Your task to perform on an android device: Set the phone to "Do not disturb". Image 0: 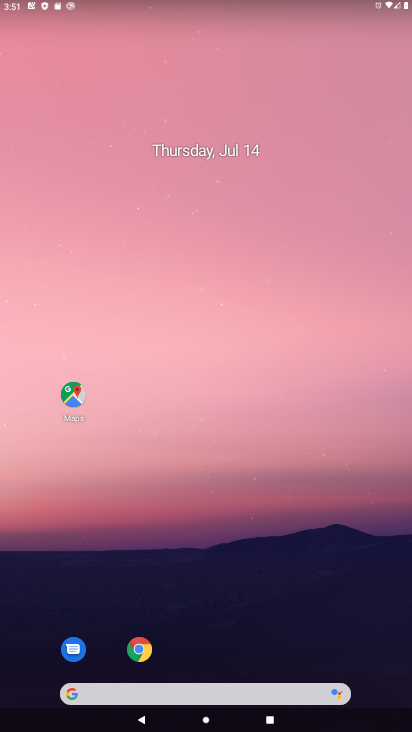
Step 0: drag from (219, 647) to (214, 32)
Your task to perform on an android device: Set the phone to "Do not disturb". Image 1: 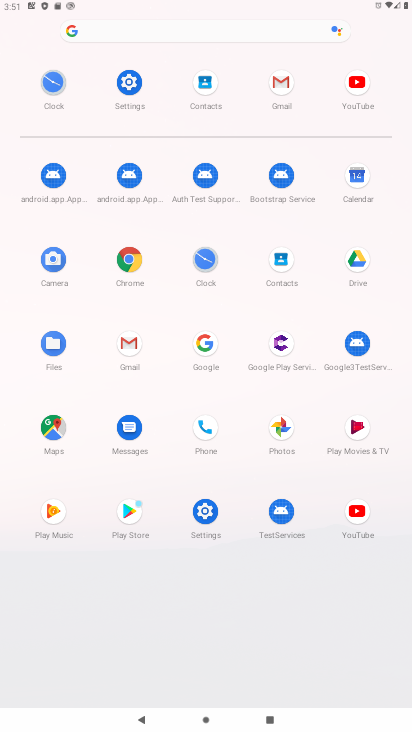
Step 1: click (202, 526)
Your task to perform on an android device: Set the phone to "Do not disturb". Image 2: 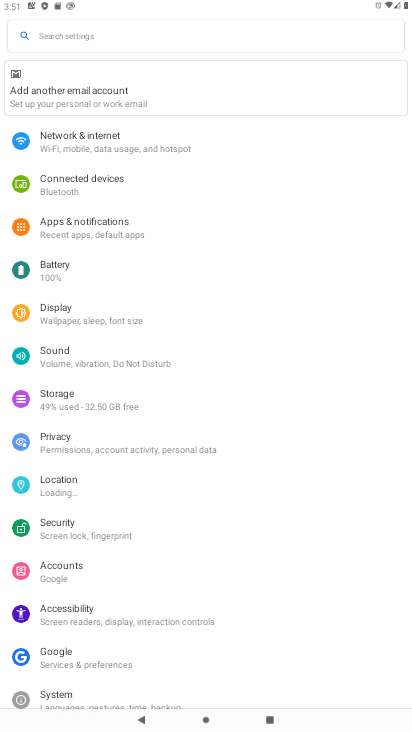
Step 2: click (100, 356)
Your task to perform on an android device: Set the phone to "Do not disturb". Image 3: 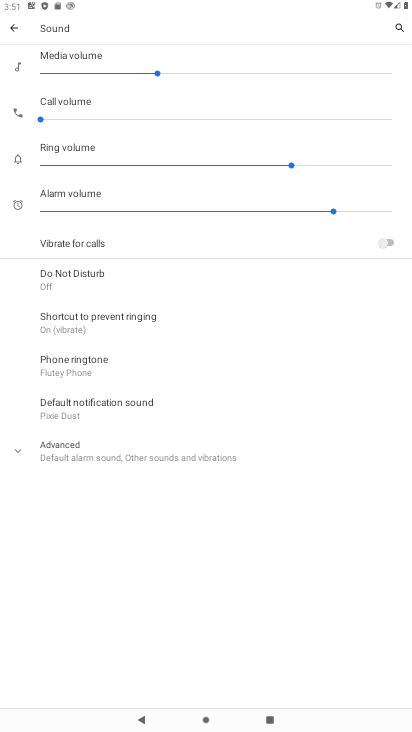
Step 3: click (88, 269)
Your task to perform on an android device: Set the phone to "Do not disturb". Image 4: 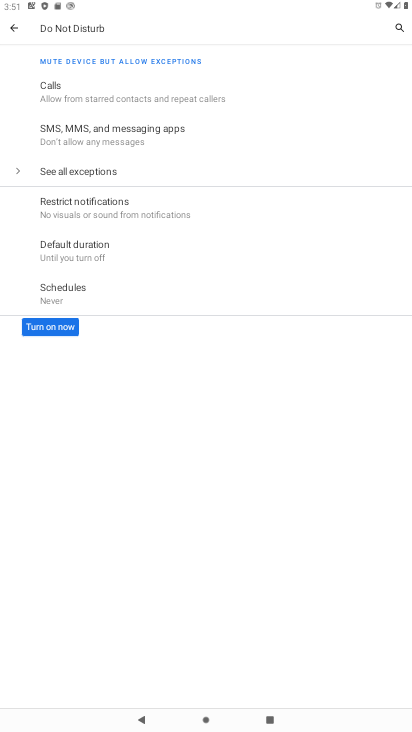
Step 4: click (64, 332)
Your task to perform on an android device: Set the phone to "Do not disturb". Image 5: 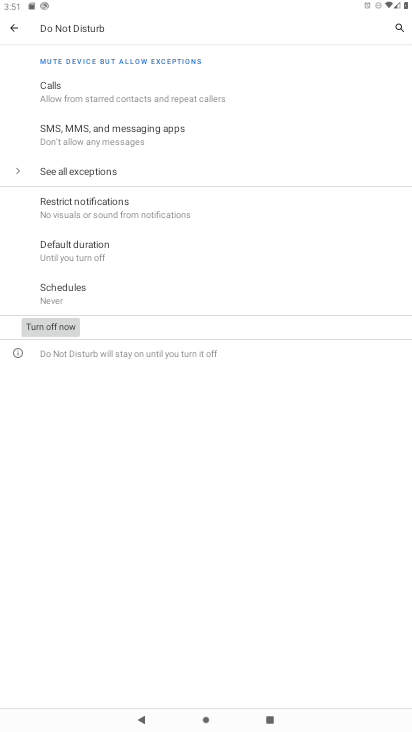
Step 5: task complete